Your task to perform on an android device: Open maps Image 0: 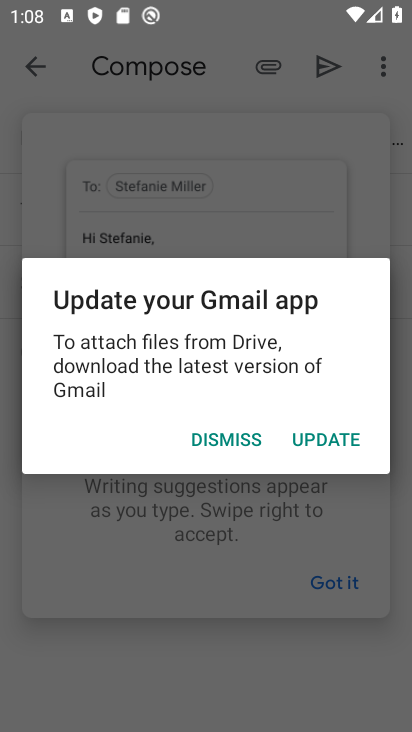
Step 0: press home button
Your task to perform on an android device: Open maps Image 1: 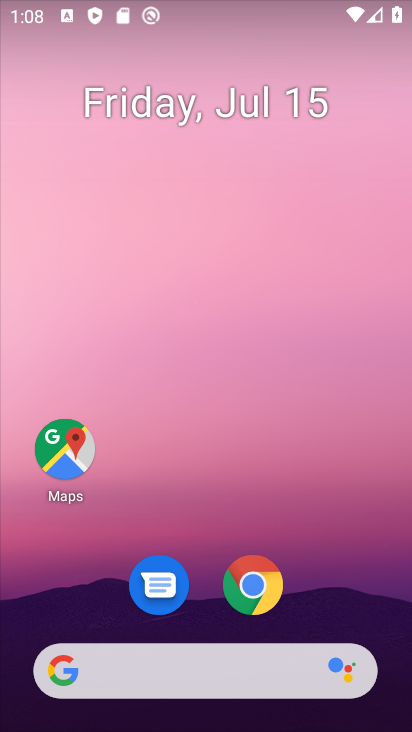
Step 1: drag from (331, 569) to (314, 92)
Your task to perform on an android device: Open maps Image 2: 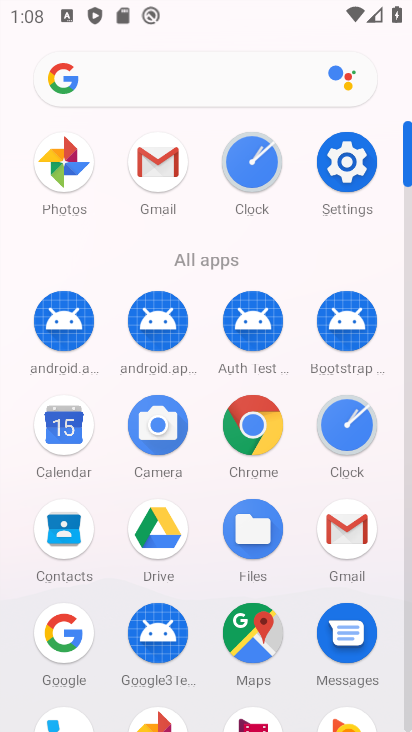
Step 2: click (261, 626)
Your task to perform on an android device: Open maps Image 3: 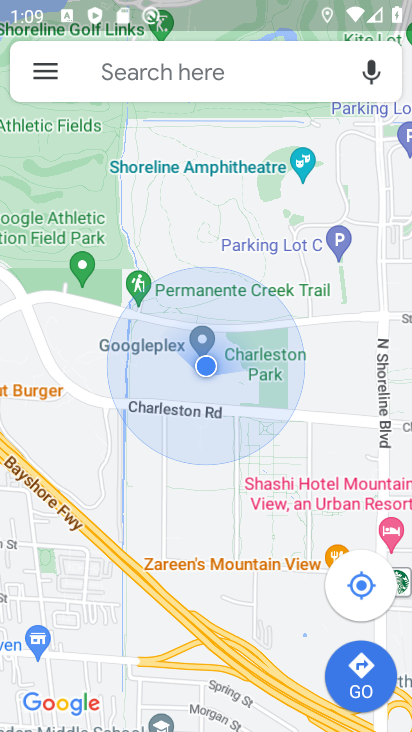
Step 3: task complete